Your task to perform on an android device: Search for pizza restaurants on Maps Image 0: 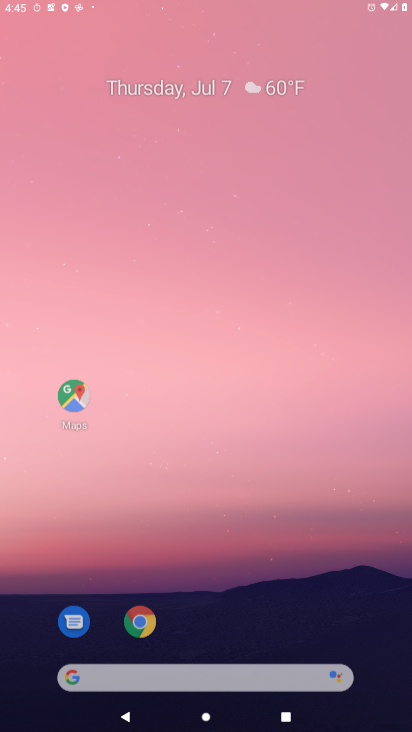
Step 0: press home button
Your task to perform on an android device: Search for pizza restaurants on Maps Image 1: 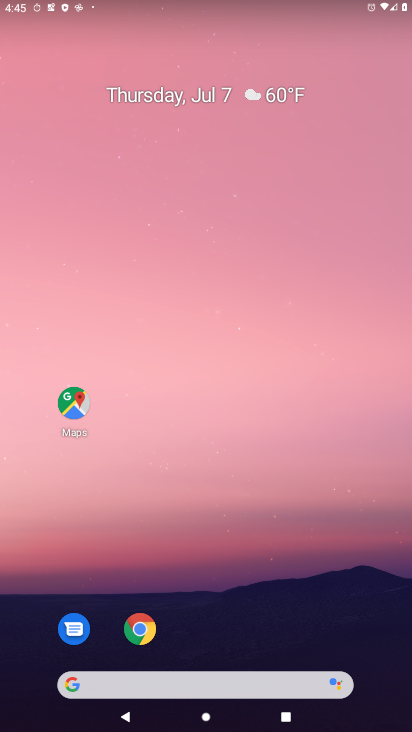
Step 1: press home button
Your task to perform on an android device: Search for pizza restaurants on Maps Image 2: 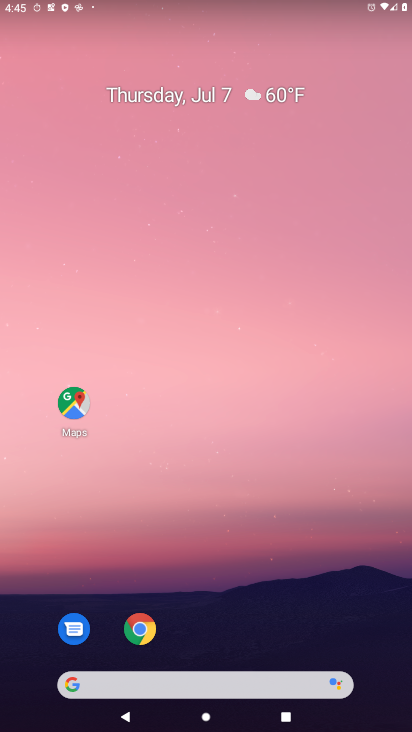
Step 2: drag from (202, 557) to (202, 213)
Your task to perform on an android device: Search for pizza restaurants on Maps Image 3: 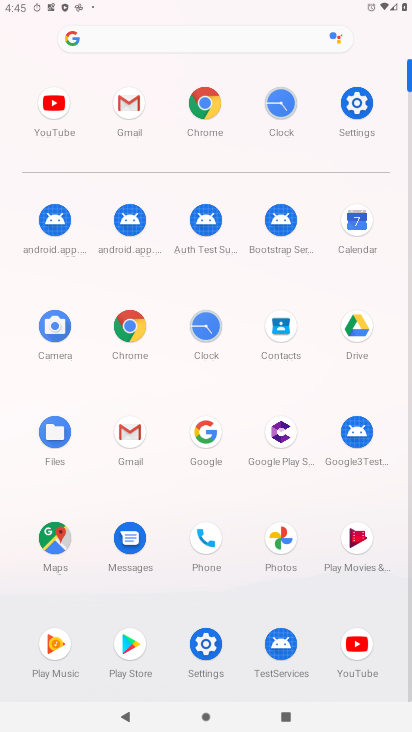
Step 3: click (41, 546)
Your task to perform on an android device: Search for pizza restaurants on Maps Image 4: 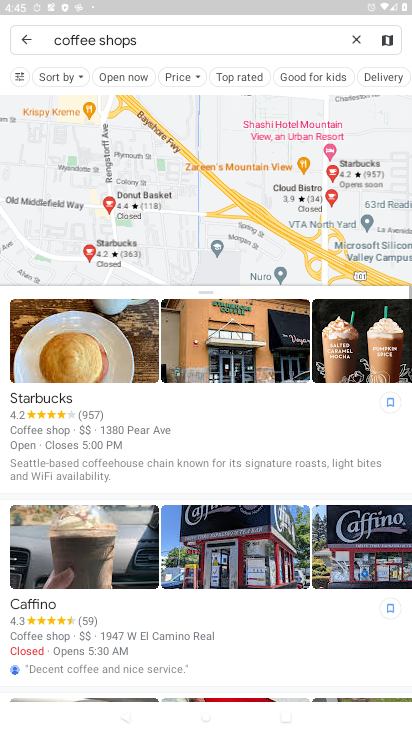
Step 4: click (181, 34)
Your task to perform on an android device: Search for pizza restaurants on Maps Image 5: 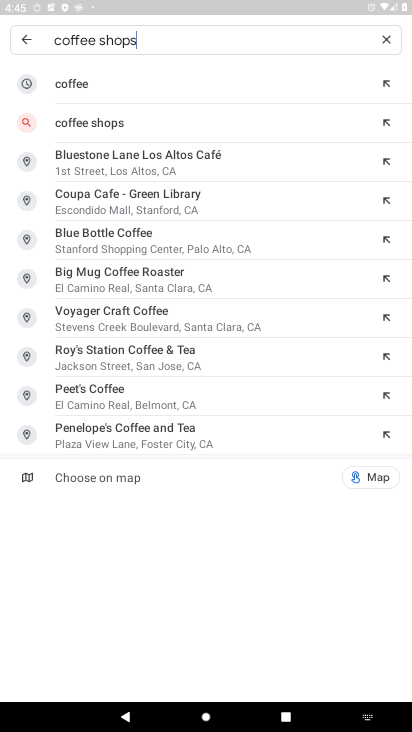
Step 5: click (388, 39)
Your task to perform on an android device: Search for pizza restaurants on Maps Image 6: 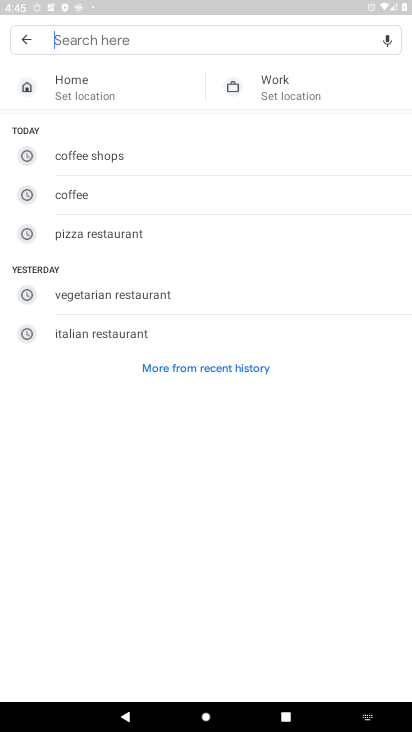
Step 6: type "pizza restaurants"
Your task to perform on an android device: Search for pizza restaurants on Maps Image 7: 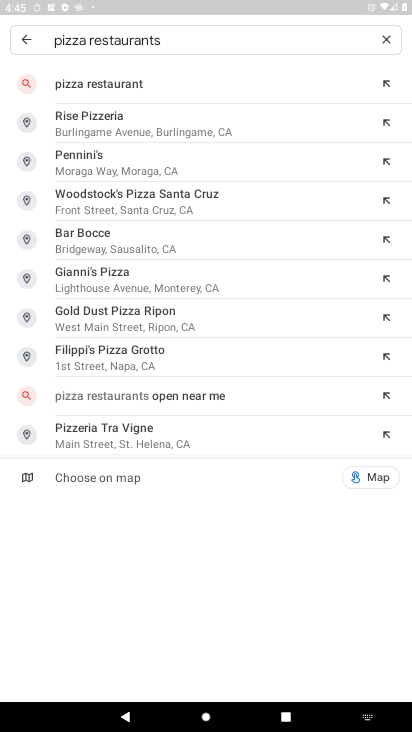
Step 7: click (100, 87)
Your task to perform on an android device: Search for pizza restaurants on Maps Image 8: 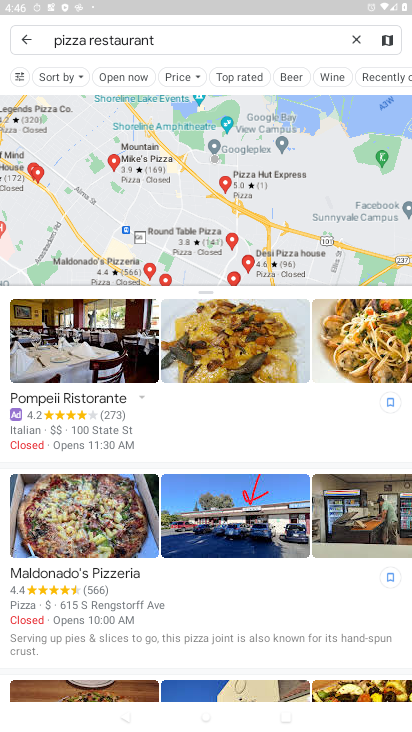
Step 8: task complete